Your task to perform on an android device: turn on the 12-hour format for clock Image 0: 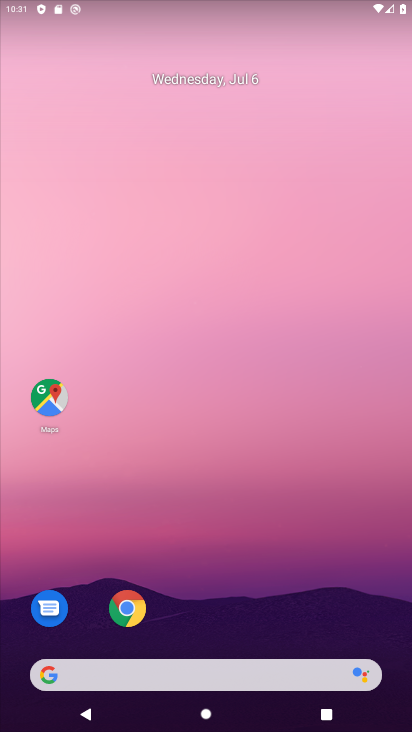
Step 0: drag from (319, 614) to (309, 193)
Your task to perform on an android device: turn on the 12-hour format for clock Image 1: 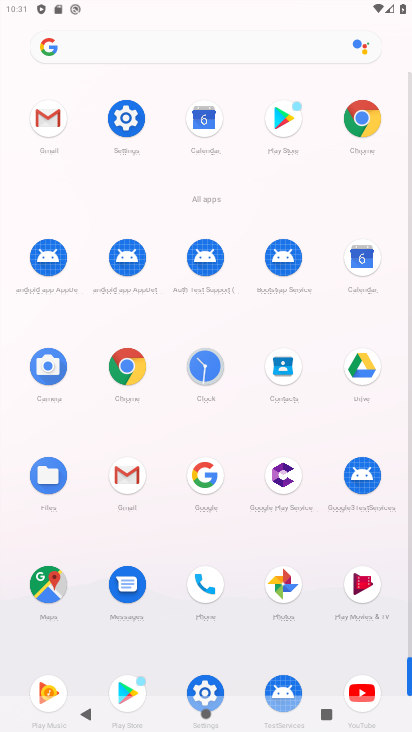
Step 1: click (206, 366)
Your task to perform on an android device: turn on the 12-hour format for clock Image 2: 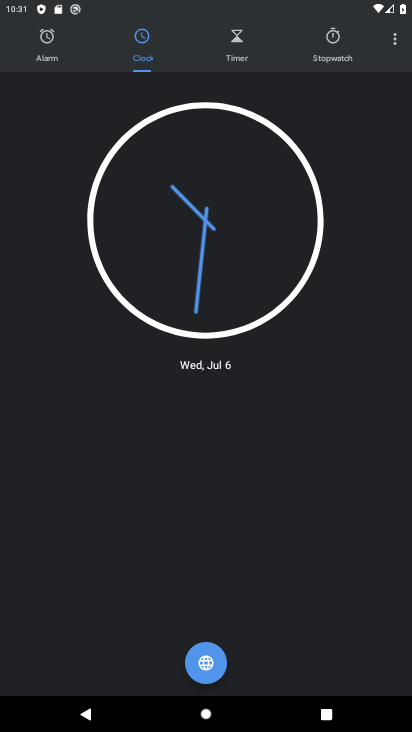
Step 2: click (398, 36)
Your task to perform on an android device: turn on the 12-hour format for clock Image 3: 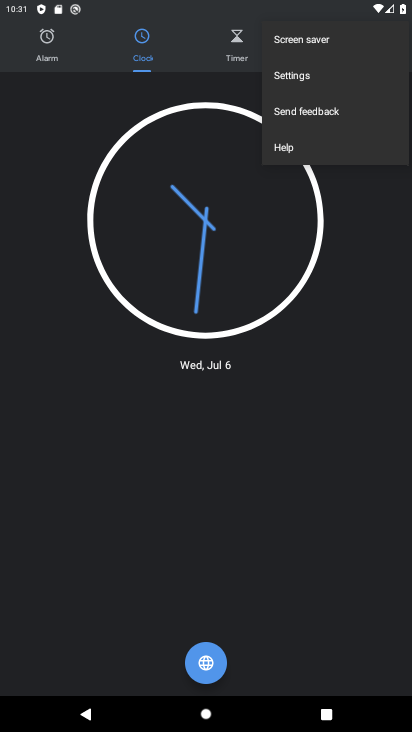
Step 3: click (298, 72)
Your task to perform on an android device: turn on the 12-hour format for clock Image 4: 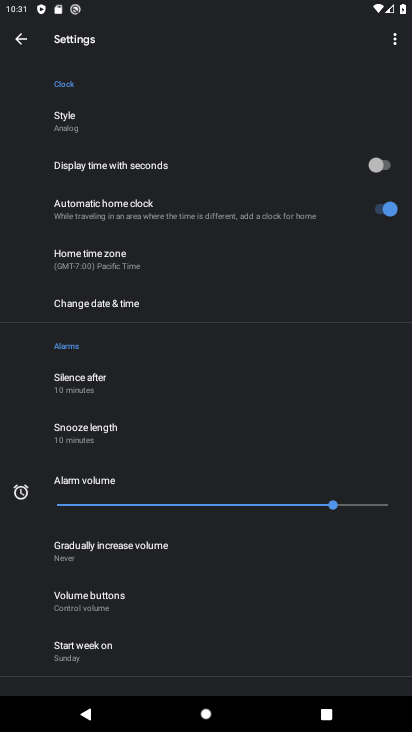
Step 4: click (98, 300)
Your task to perform on an android device: turn on the 12-hour format for clock Image 5: 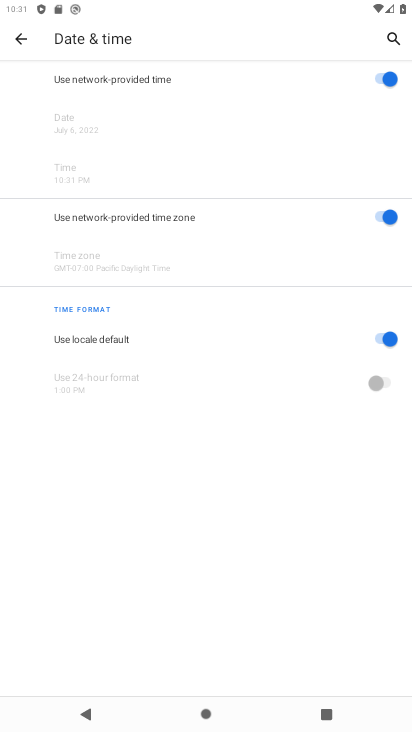
Step 5: task complete